Your task to perform on an android device: Turn on the flashlight Image 0: 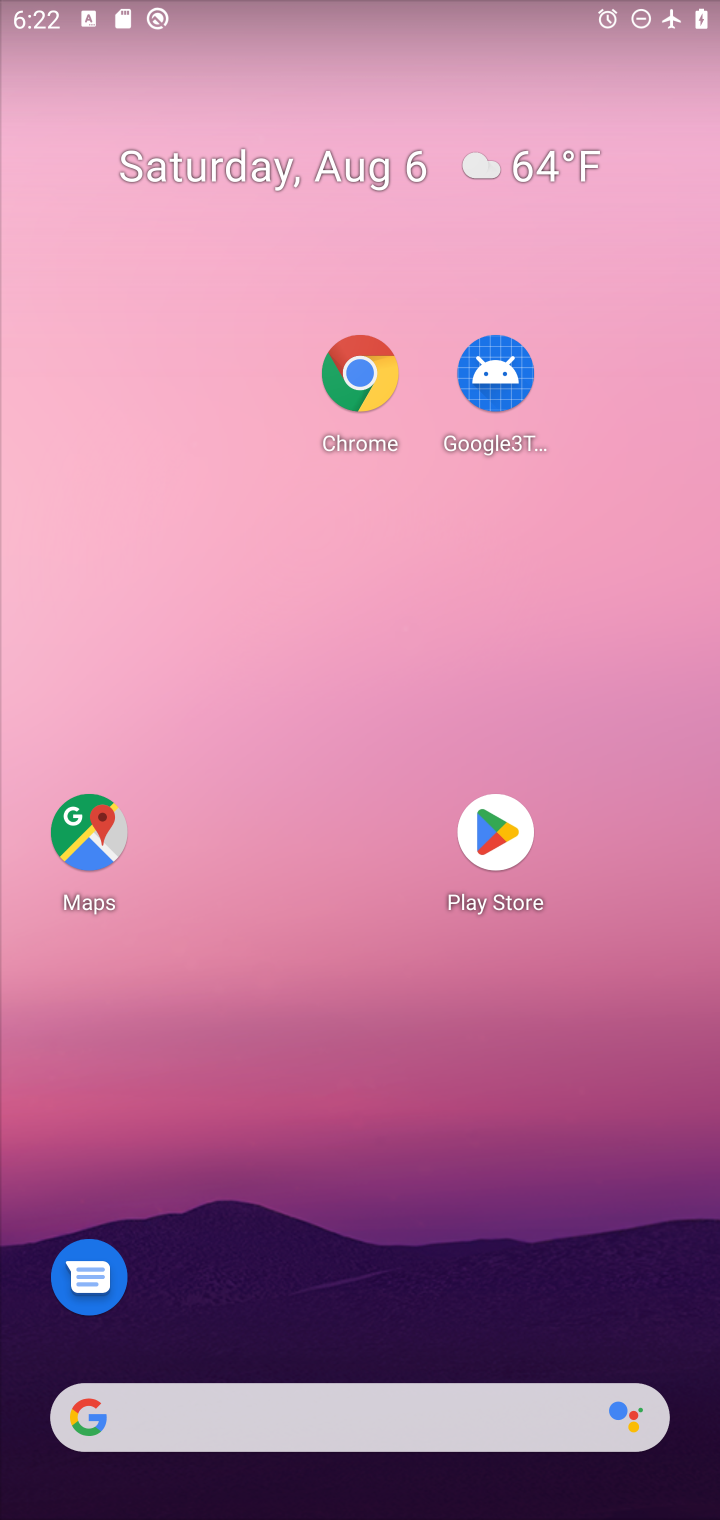
Step 0: press home button
Your task to perform on an android device: Turn on the flashlight Image 1: 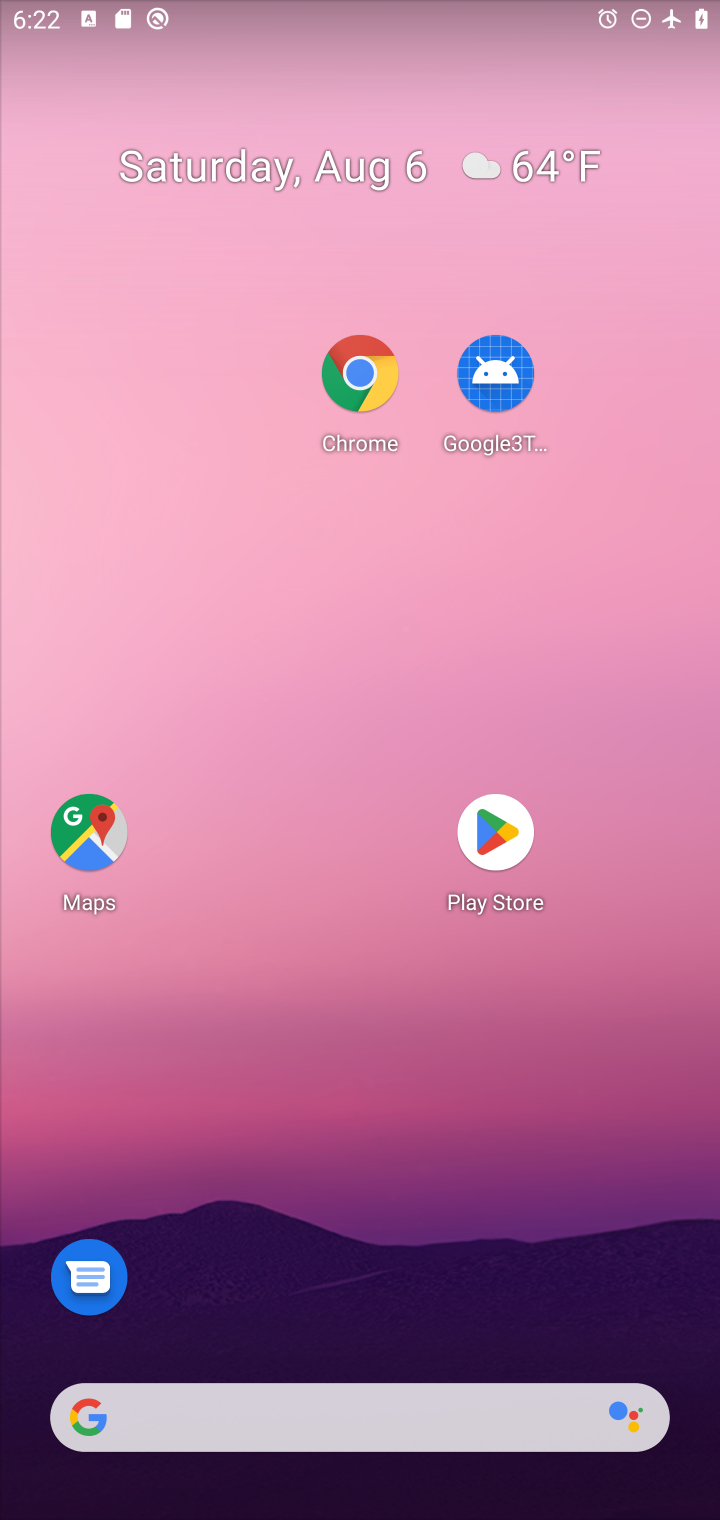
Step 1: task complete